Your task to perform on an android device: Open location settings Image 0: 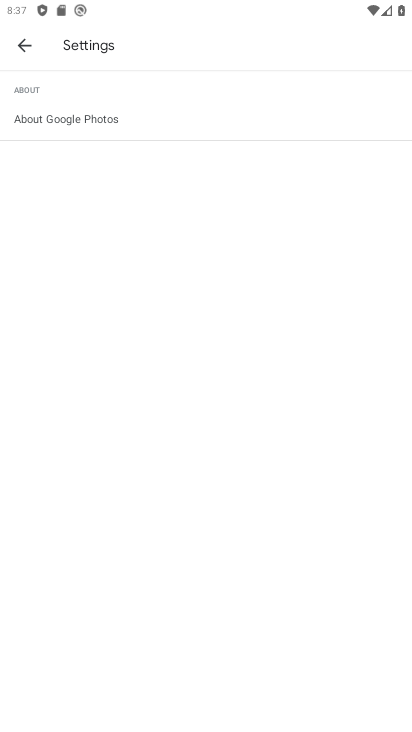
Step 0: press home button
Your task to perform on an android device: Open location settings Image 1: 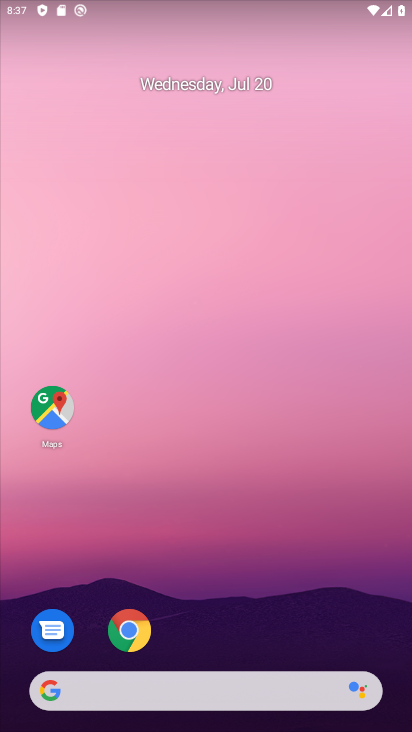
Step 1: drag from (260, 655) to (264, 277)
Your task to perform on an android device: Open location settings Image 2: 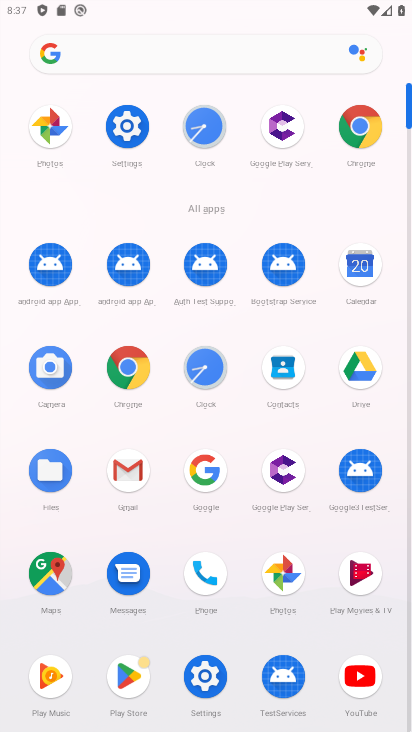
Step 2: click (134, 127)
Your task to perform on an android device: Open location settings Image 3: 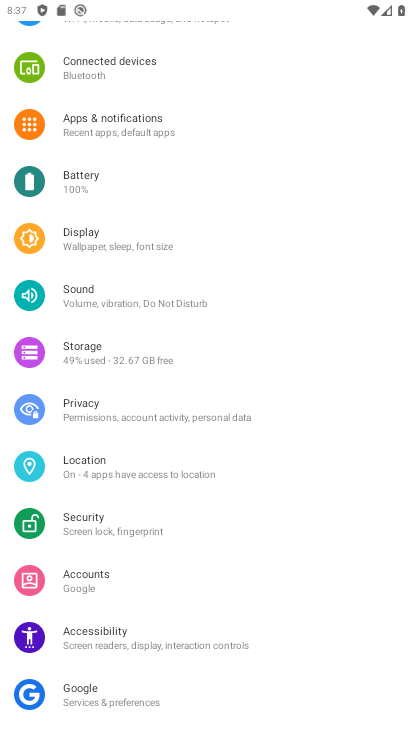
Step 3: click (118, 464)
Your task to perform on an android device: Open location settings Image 4: 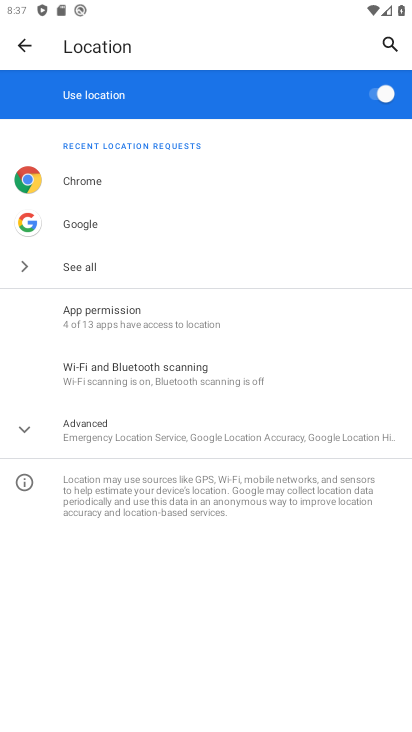
Step 4: task complete